Your task to perform on an android device: Open battery settings Image 0: 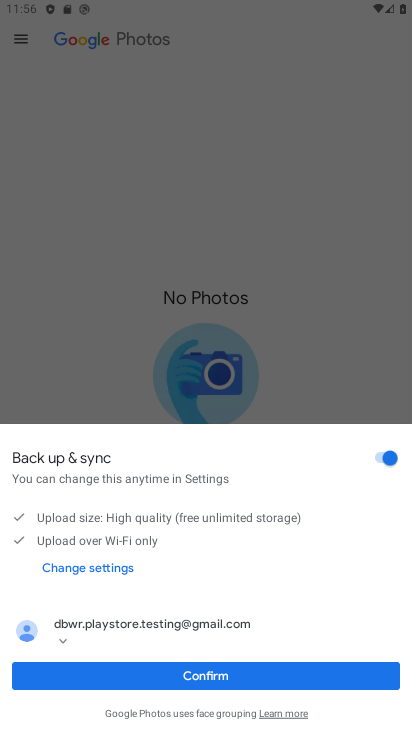
Step 0: press home button
Your task to perform on an android device: Open battery settings Image 1: 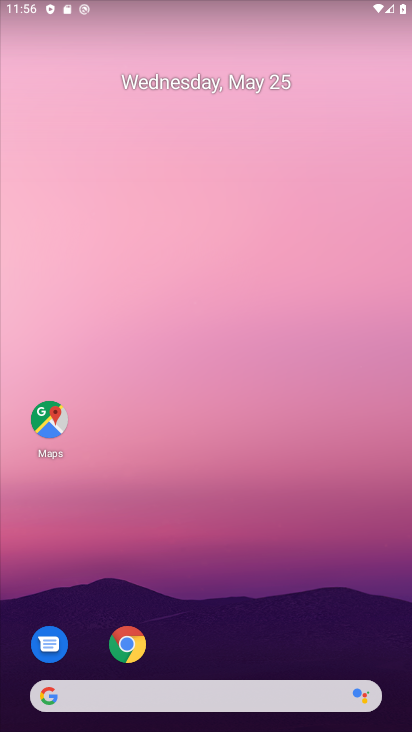
Step 1: drag from (218, 595) to (204, 131)
Your task to perform on an android device: Open battery settings Image 2: 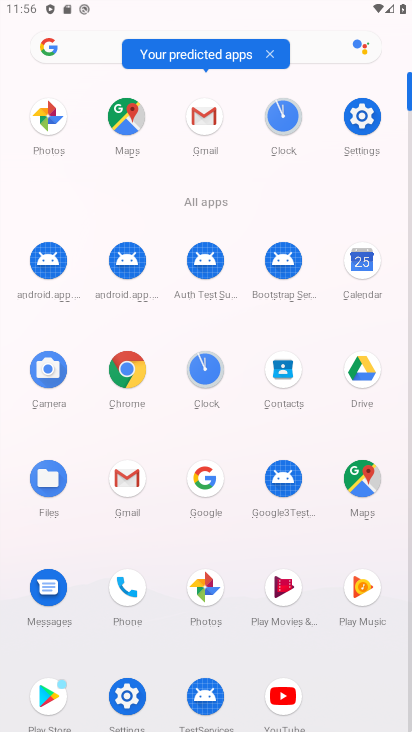
Step 2: click (365, 118)
Your task to perform on an android device: Open battery settings Image 3: 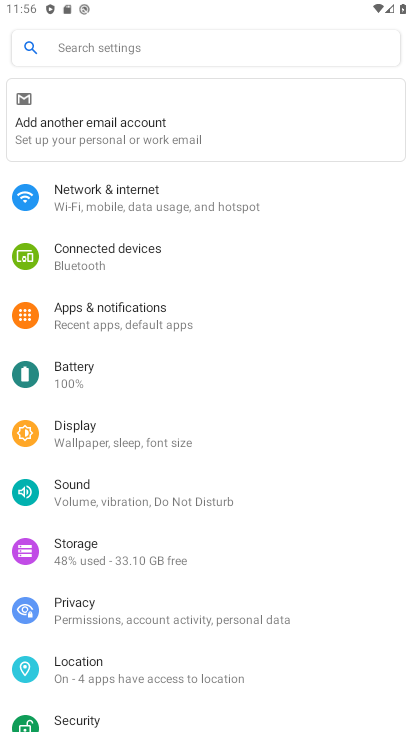
Step 3: click (84, 371)
Your task to perform on an android device: Open battery settings Image 4: 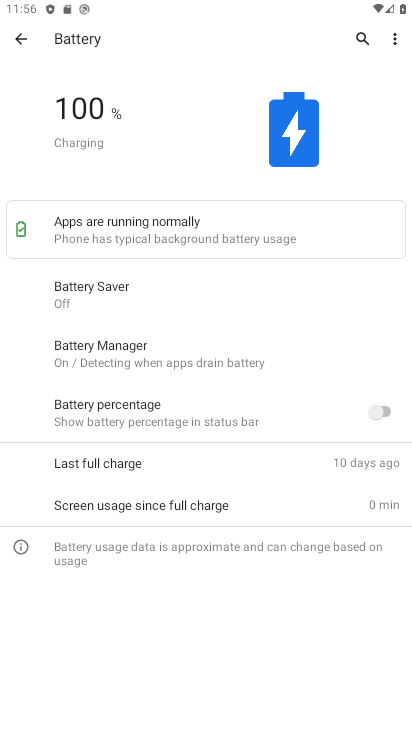
Step 4: task complete